Your task to perform on an android device: turn on javascript in the chrome app Image 0: 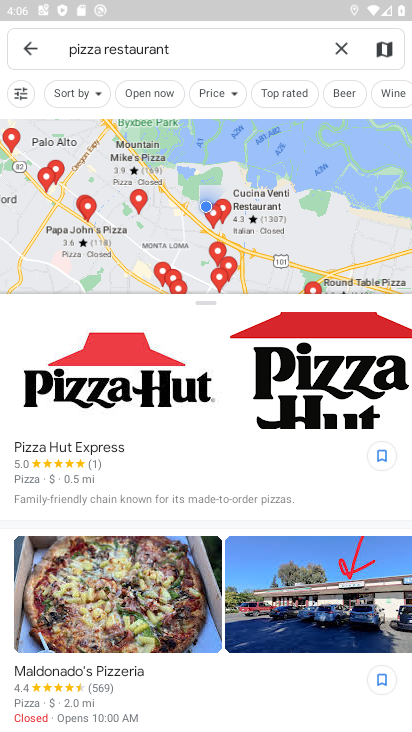
Step 0: press home button
Your task to perform on an android device: turn on javascript in the chrome app Image 1: 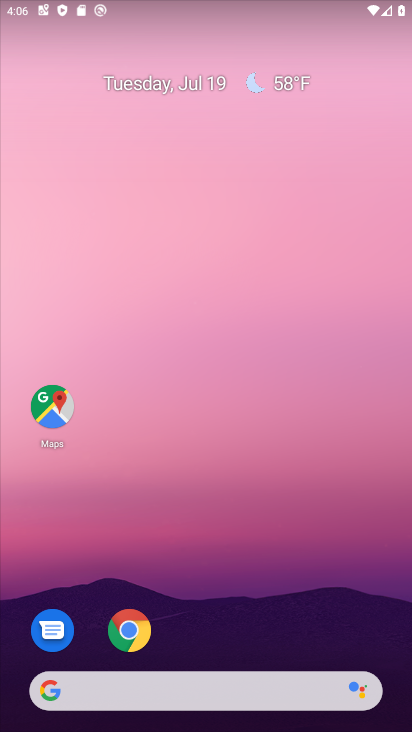
Step 1: click (123, 625)
Your task to perform on an android device: turn on javascript in the chrome app Image 2: 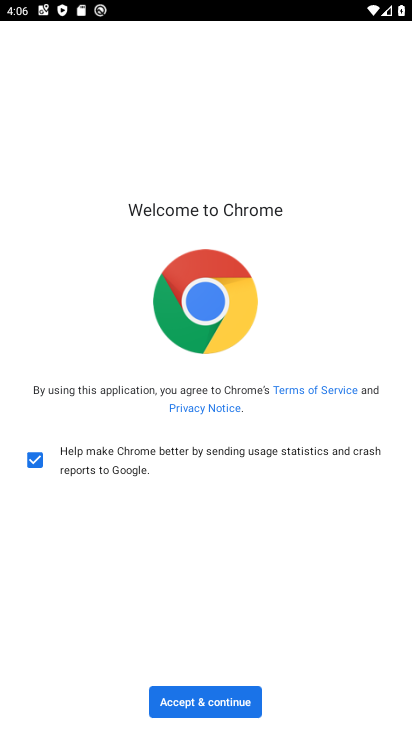
Step 2: click (238, 704)
Your task to perform on an android device: turn on javascript in the chrome app Image 3: 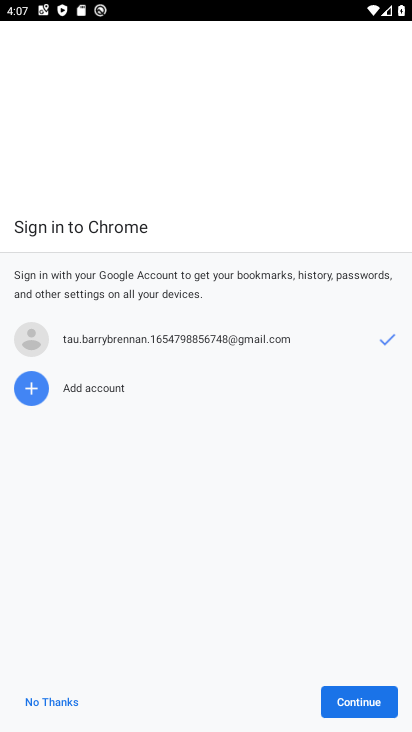
Step 3: click (357, 713)
Your task to perform on an android device: turn on javascript in the chrome app Image 4: 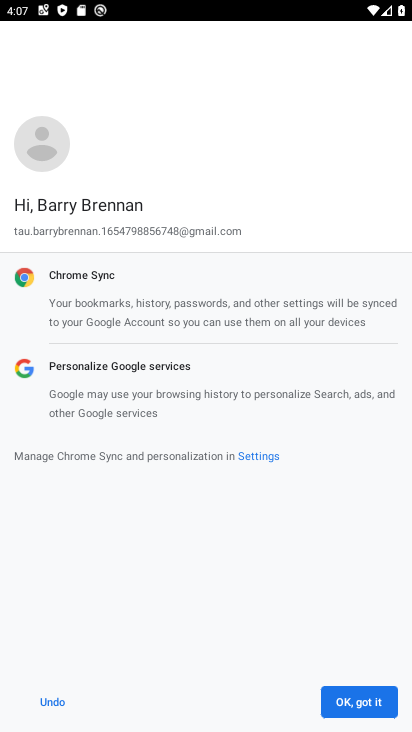
Step 4: click (367, 706)
Your task to perform on an android device: turn on javascript in the chrome app Image 5: 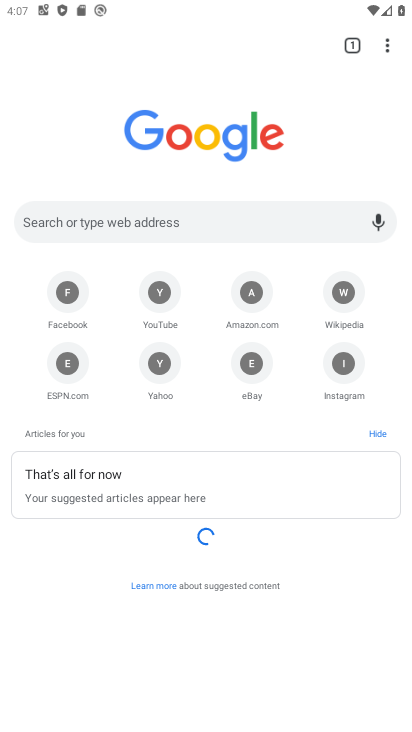
Step 5: drag from (393, 45) to (259, 367)
Your task to perform on an android device: turn on javascript in the chrome app Image 6: 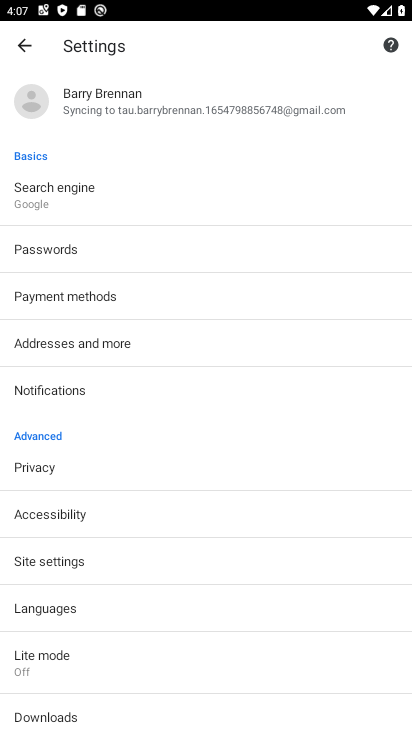
Step 6: click (115, 566)
Your task to perform on an android device: turn on javascript in the chrome app Image 7: 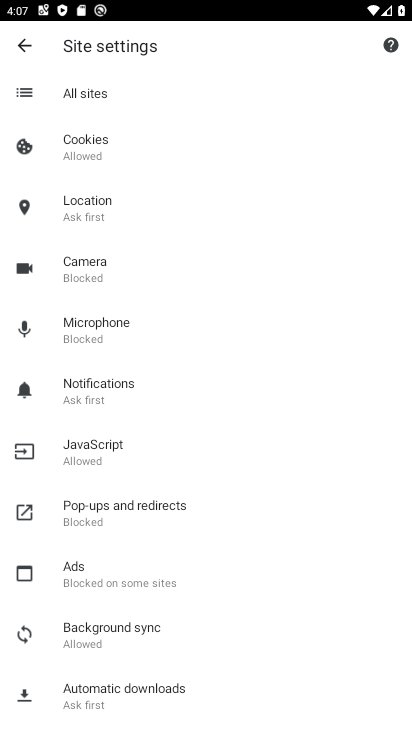
Step 7: click (144, 450)
Your task to perform on an android device: turn on javascript in the chrome app Image 8: 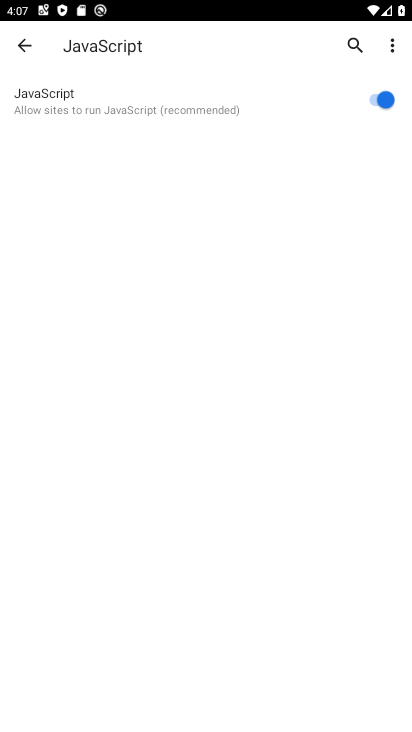
Step 8: task complete